Your task to perform on an android device: Open Yahoo.com Image 0: 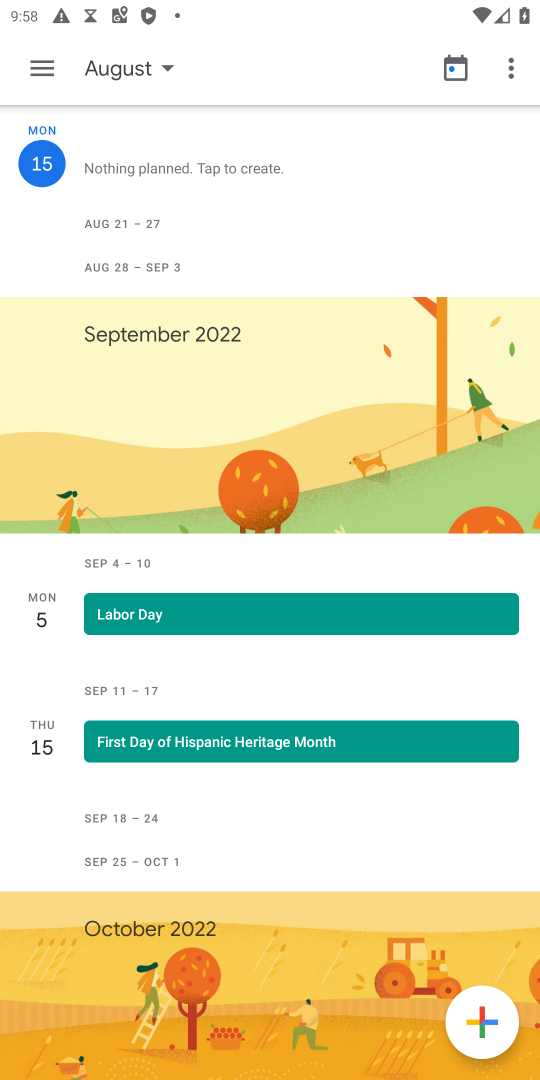
Step 0: press home button
Your task to perform on an android device: Open Yahoo.com Image 1: 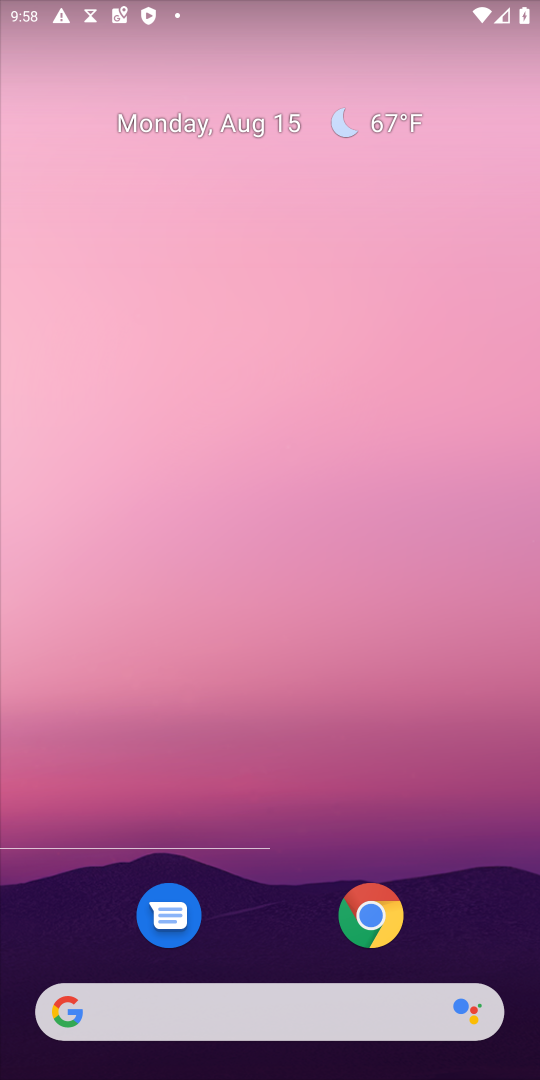
Step 1: click (79, 1012)
Your task to perform on an android device: Open Yahoo.com Image 2: 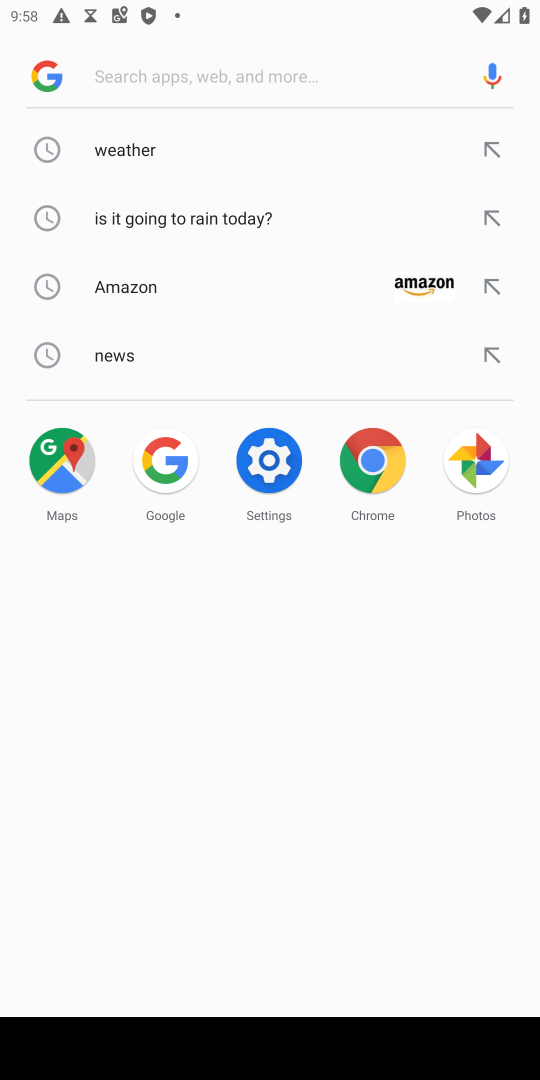
Step 2: type "Yahoo.com"
Your task to perform on an android device: Open Yahoo.com Image 3: 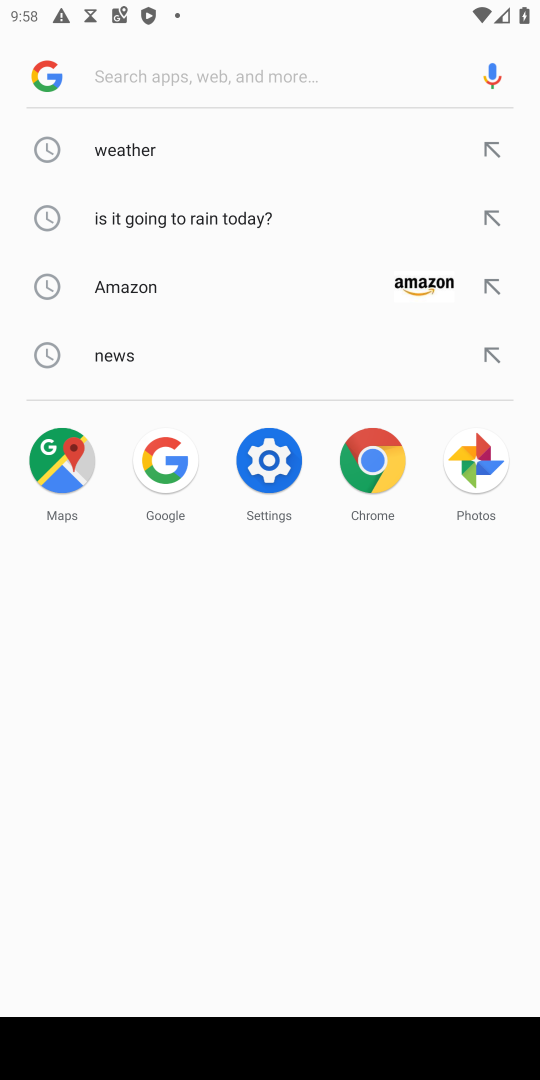
Step 3: click (125, 73)
Your task to perform on an android device: Open Yahoo.com Image 4: 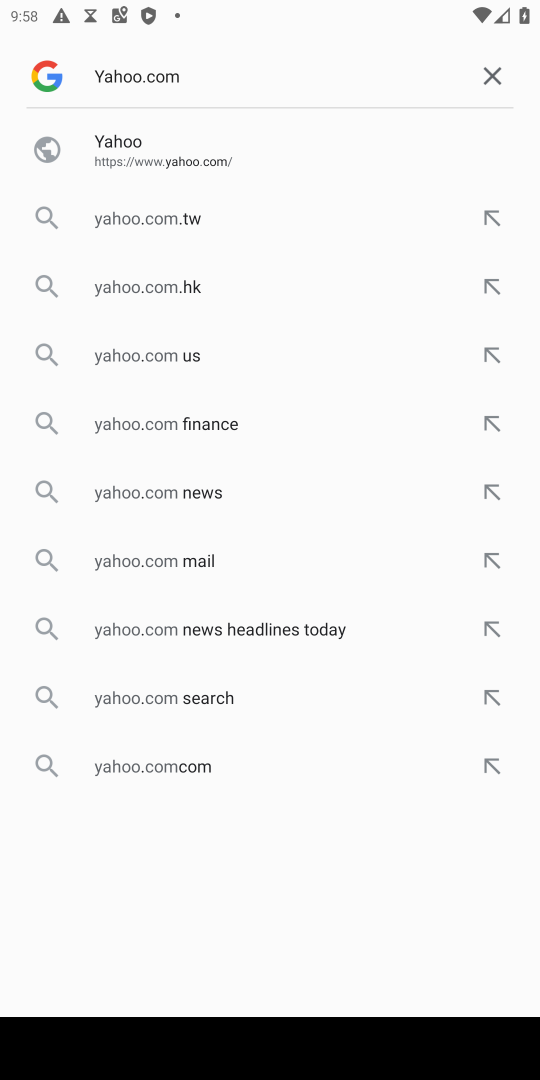
Step 4: press enter
Your task to perform on an android device: Open Yahoo.com Image 5: 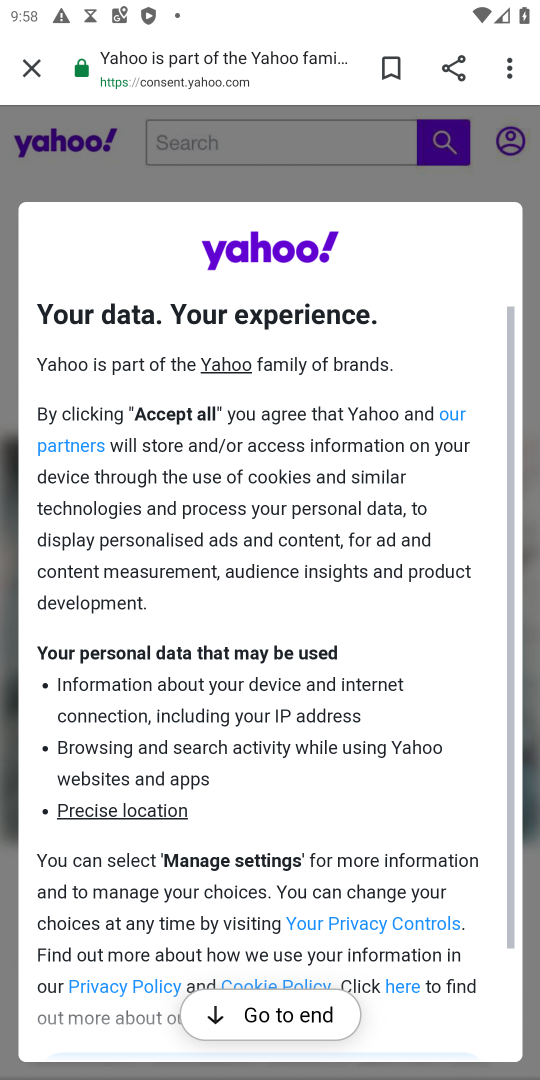
Step 5: click (269, 1014)
Your task to perform on an android device: Open Yahoo.com Image 6: 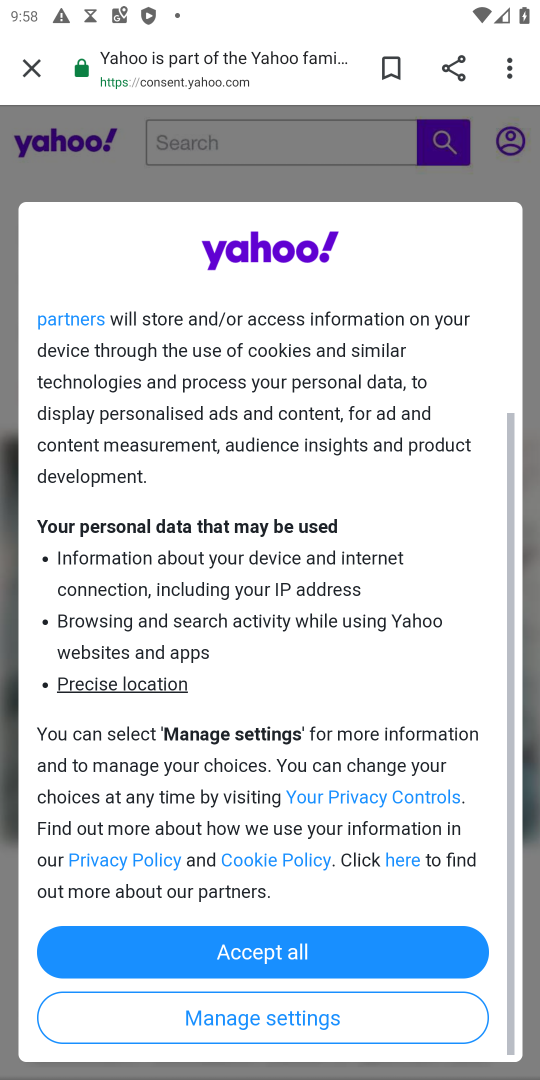
Step 6: click (345, 957)
Your task to perform on an android device: Open Yahoo.com Image 7: 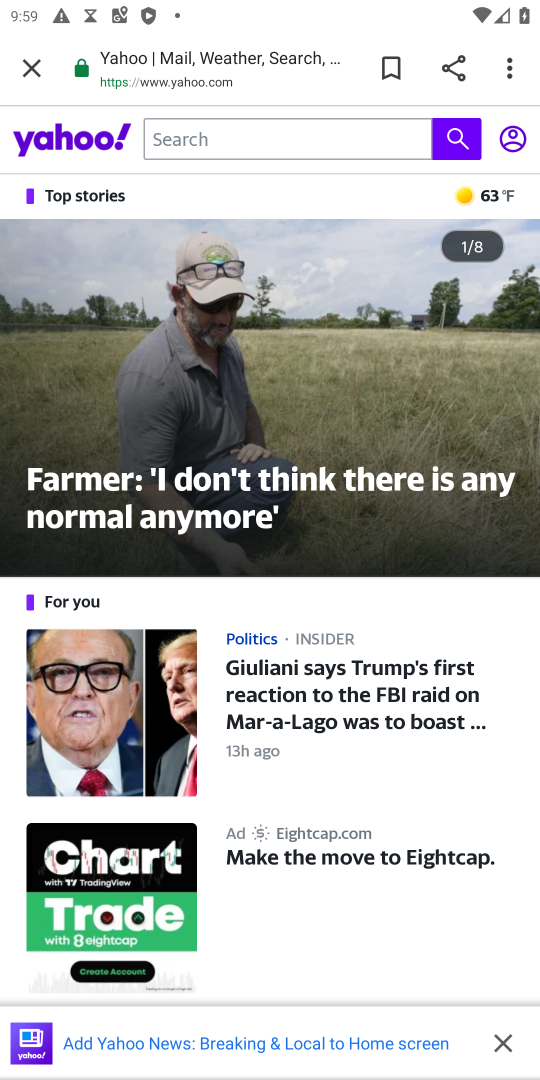
Step 7: task complete